Your task to perform on an android device: When is my next appointment? Image 0: 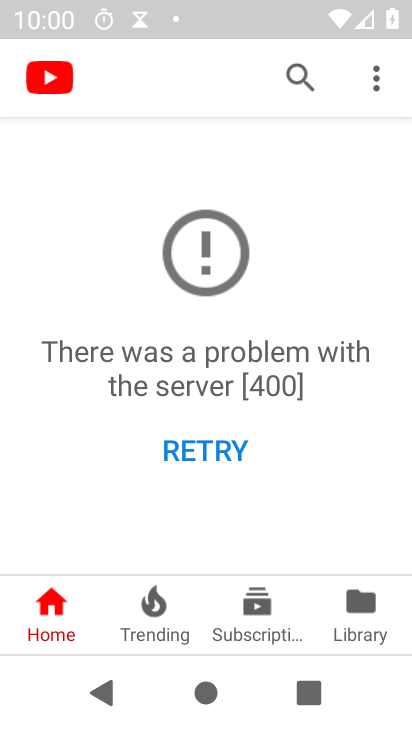
Step 0: press home button
Your task to perform on an android device: When is my next appointment? Image 1: 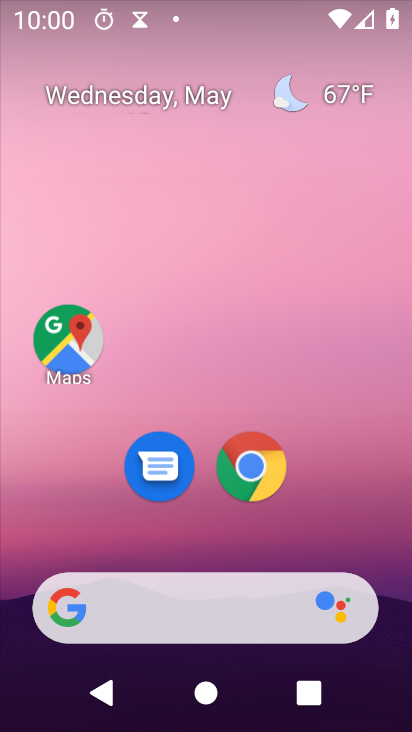
Step 1: drag from (302, 523) to (234, 59)
Your task to perform on an android device: When is my next appointment? Image 2: 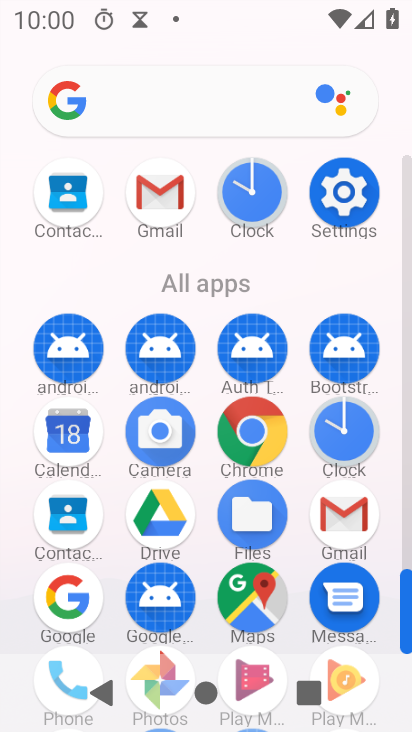
Step 2: click (70, 461)
Your task to perform on an android device: When is my next appointment? Image 3: 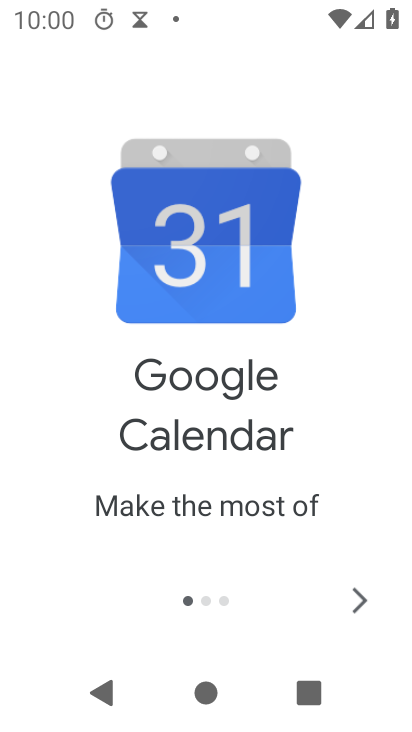
Step 3: click (359, 599)
Your task to perform on an android device: When is my next appointment? Image 4: 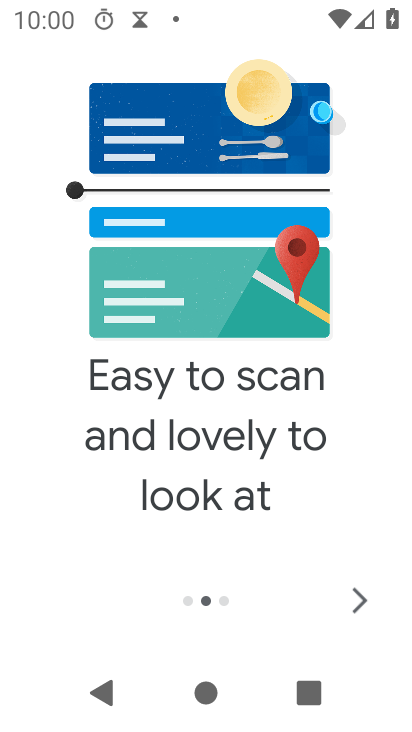
Step 4: click (360, 596)
Your task to perform on an android device: When is my next appointment? Image 5: 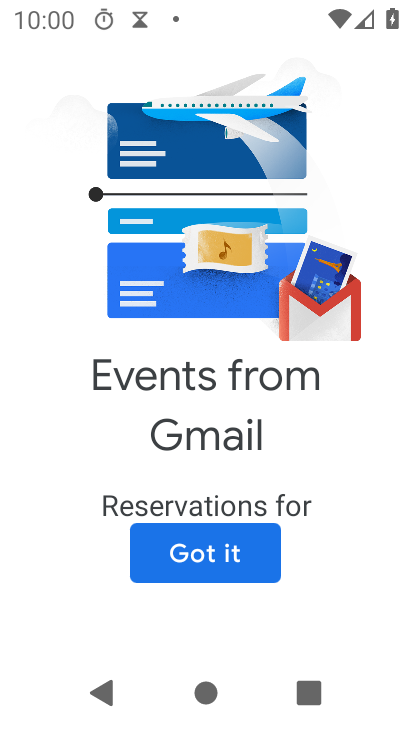
Step 5: click (188, 563)
Your task to perform on an android device: When is my next appointment? Image 6: 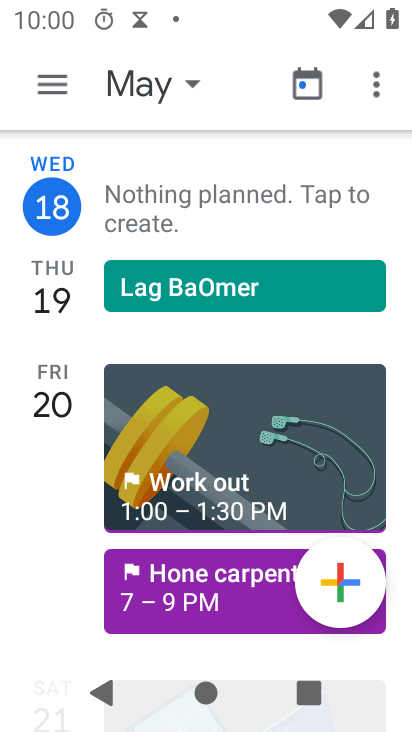
Step 6: task complete